Your task to perform on an android device: turn off sleep mode Image 0: 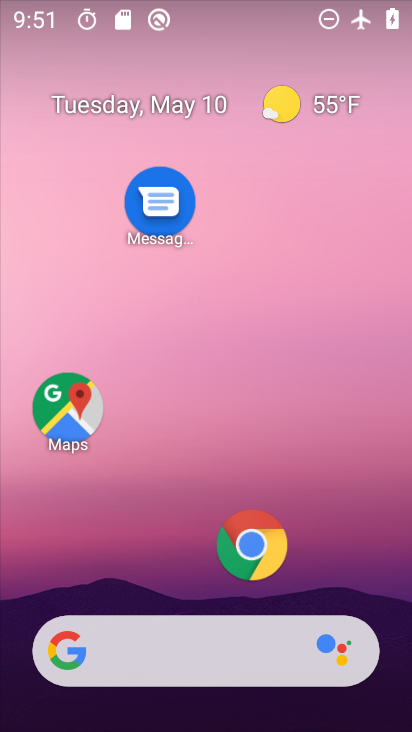
Step 0: drag from (166, 559) to (180, 148)
Your task to perform on an android device: turn off sleep mode Image 1: 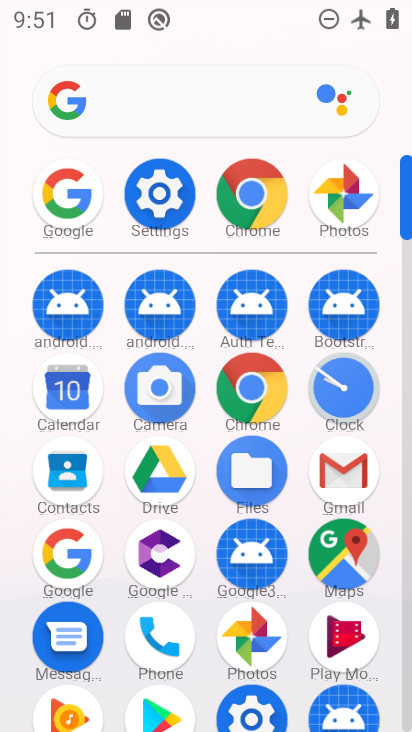
Step 1: click (180, 189)
Your task to perform on an android device: turn off sleep mode Image 2: 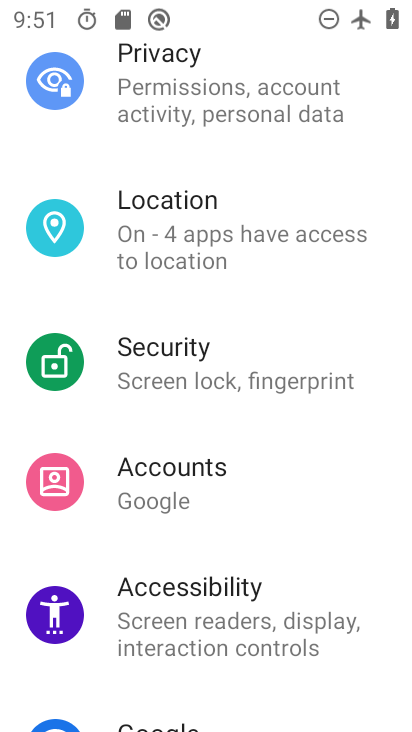
Step 2: drag from (221, 305) to (219, 518)
Your task to perform on an android device: turn off sleep mode Image 3: 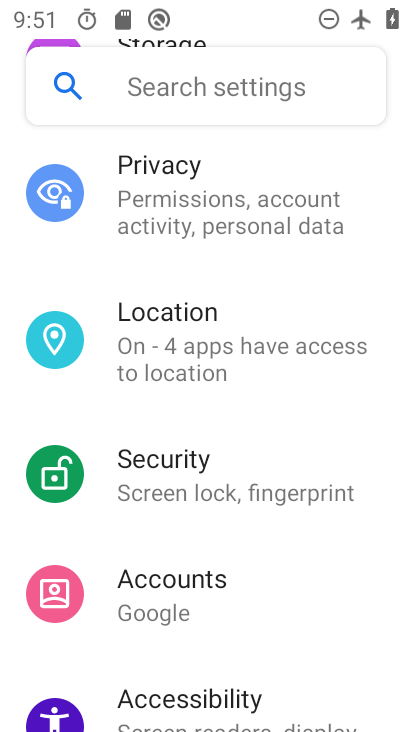
Step 3: drag from (209, 168) to (216, 415)
Your task to perform on an android device: turn off sleep mode Image 4: 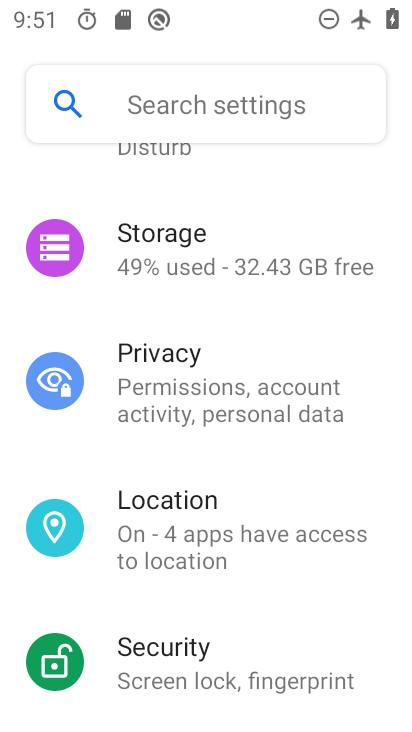
Step 4: drag from (198, 286) to (229, 452)
Your task to perform on an android device: turn off sleep mode Image 5: 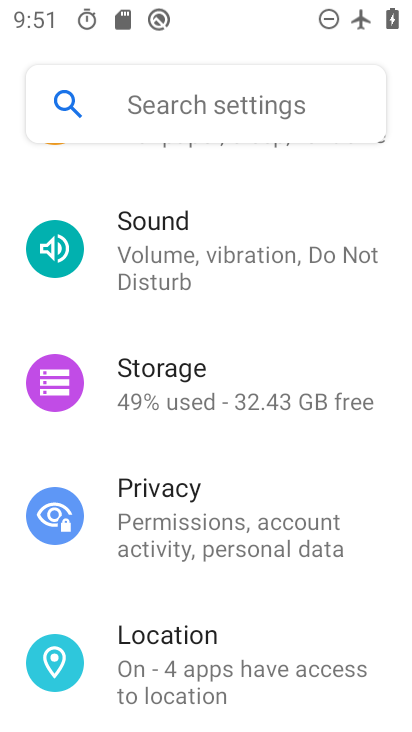
Step 5: drag from (211, 291) to (214, 581)
Your task to perform on an android device: turn off sleep mode Image 6: 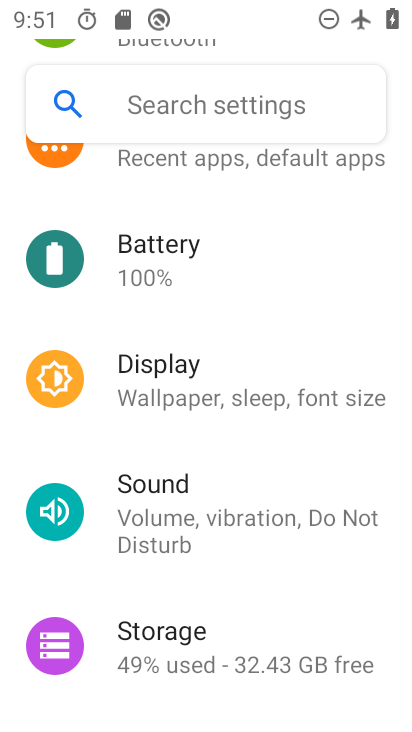
Step 6: drag from (203, 328) to (217, 548)
Your task to perform on an android device: turn off sleep mode Image 7: 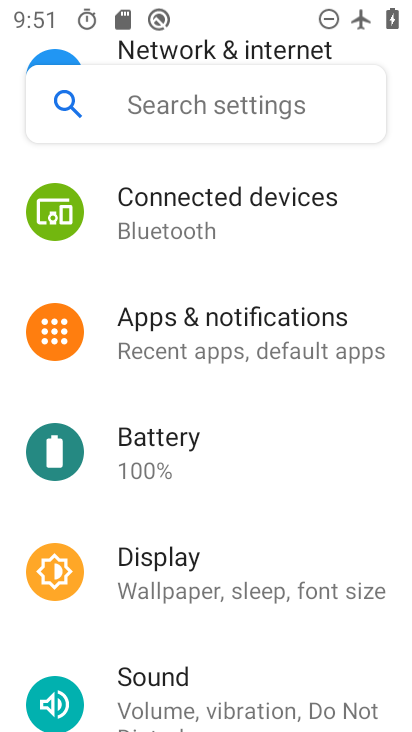
Step 7: drag from (219, 231) to (225, 612)
Your task to perform on an android device: turn off sleep mode Image 8: 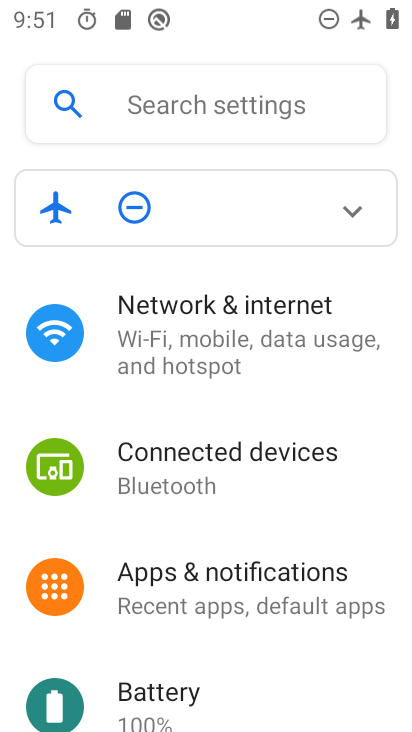
Step 8: drag from (203, 629) to (228, 339)
Your task to perform on an android device: turn off sleep mode Image 9: 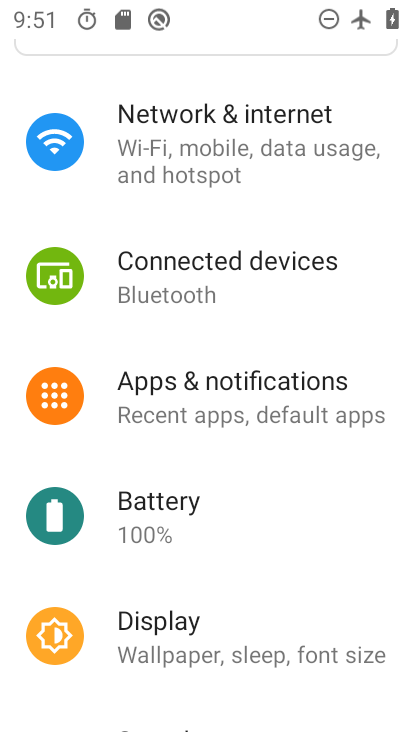
Step 9: click (207, 615)
Your task to perform on an android device: turn off sleep mode Image 10: 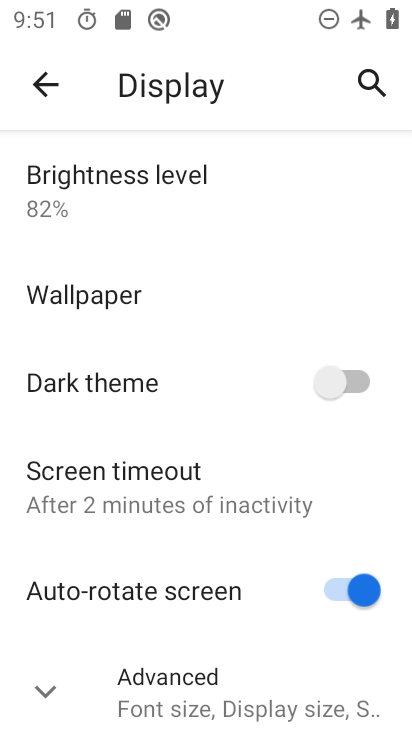
Step 10: click (135, 479)
Your task to perform on an android device: turn off sleep mode Image 11: 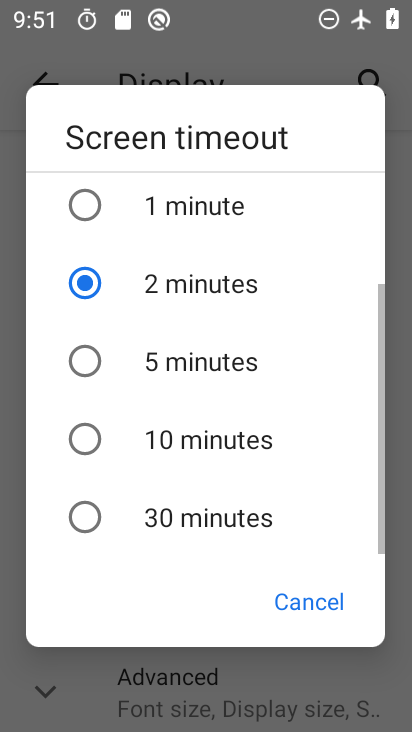
Step 11: click (145, 443)
Your task to perform on an android device: turn off sleep mode Image 12: 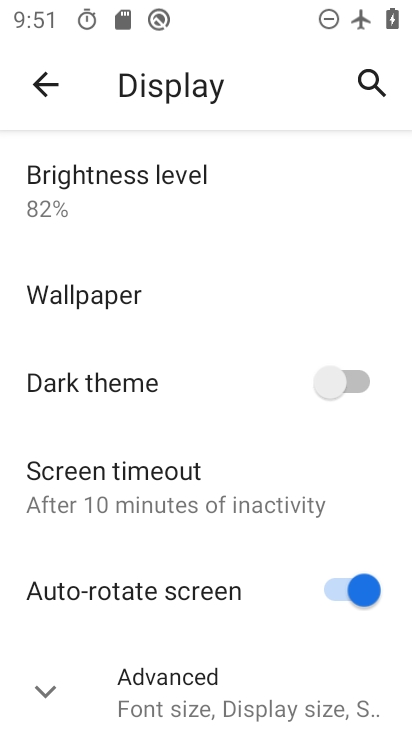
Step 12: task complete